Your task to perform on an android device: Open Chrome and go to settings Image 0: 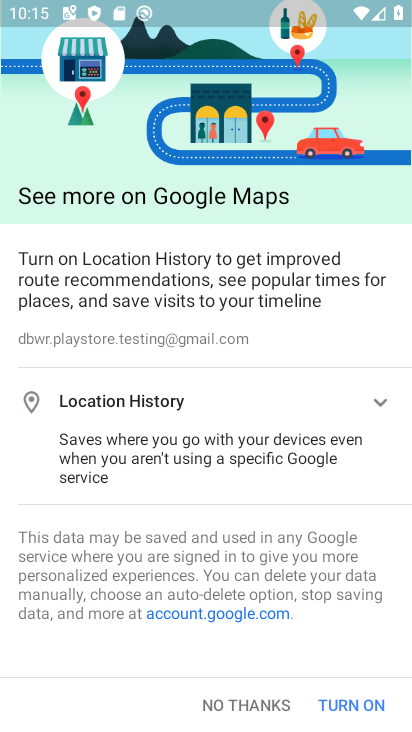
Step 0: press home button
Your task to perform on an android device: Open Chrome and go to settings Image 1: 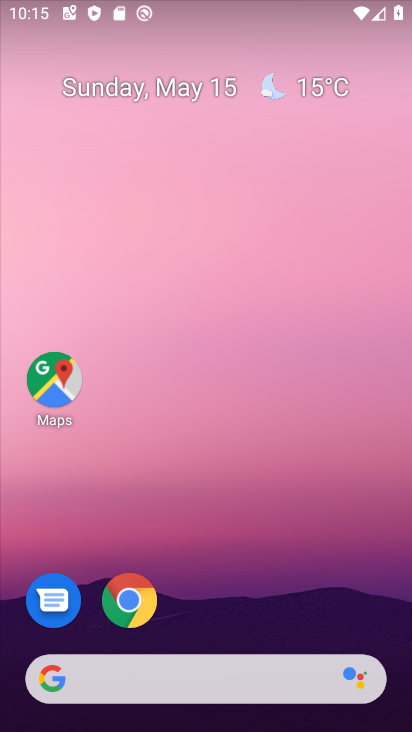
Step 1: drag from (351, 608) to (383, 170)
Your task to perform on an android device: Open Chrome and go to settings Image 2: 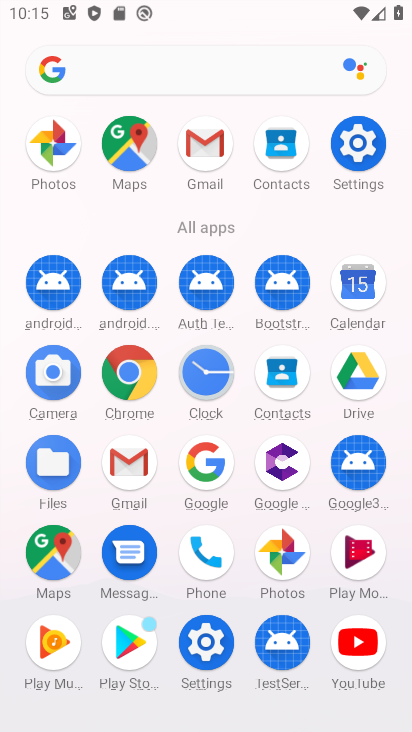
Step 2: click (130, 381)
Your task to perform on an android device: Open Chrome and go to settings Image 3: 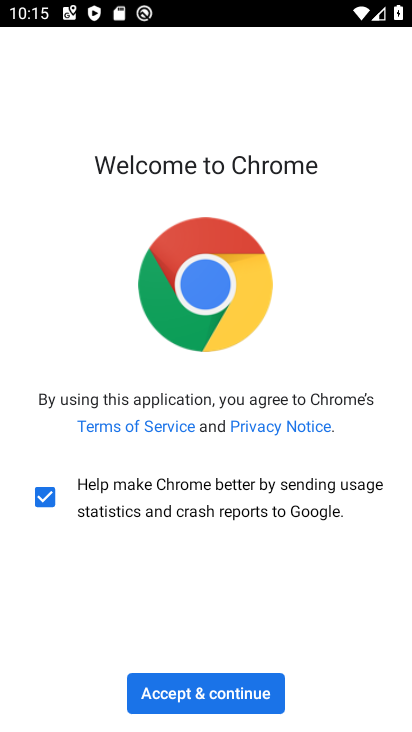
Step 3: click (264, 706)
Your task to perform on an android device: Open Chrome and go to settings Image 4: 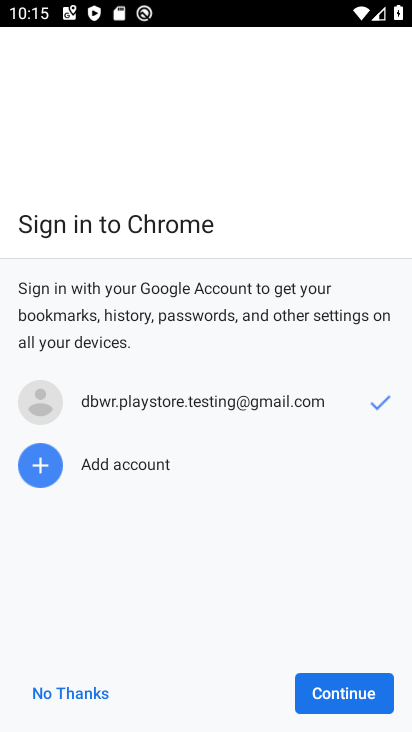
Step 4: click (356, 697)
Your task to perform on an android device: Open Chrome and go to settings Image 5: 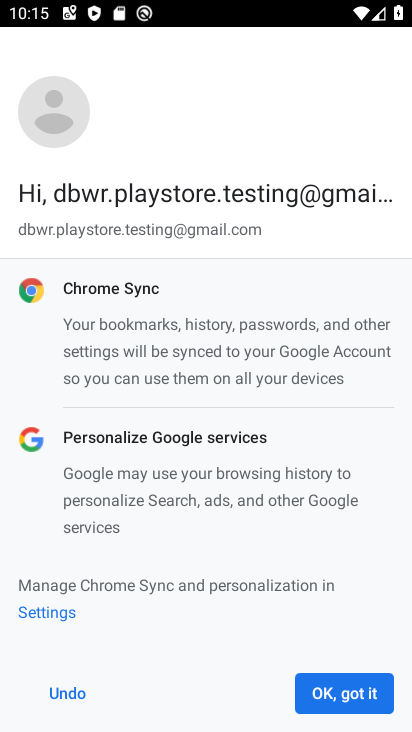
Step 5: click (356, 697)
Your task to perform on an android device: Open Chrome and go to settings Image 6: 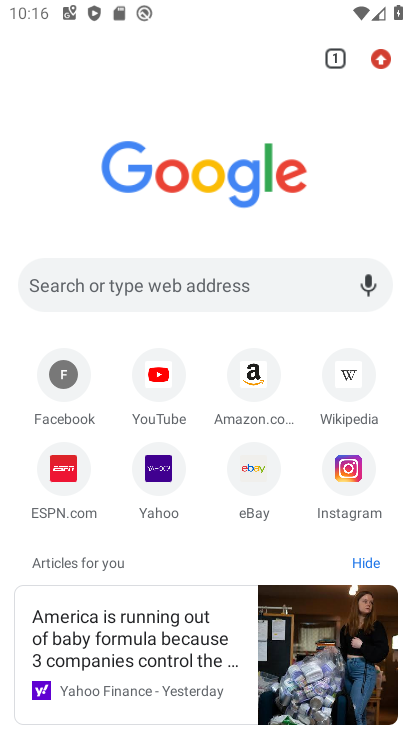
Step 6: click (377, 69)
Your task to perform on an android device: Open Chrome and go to settings Image 7: 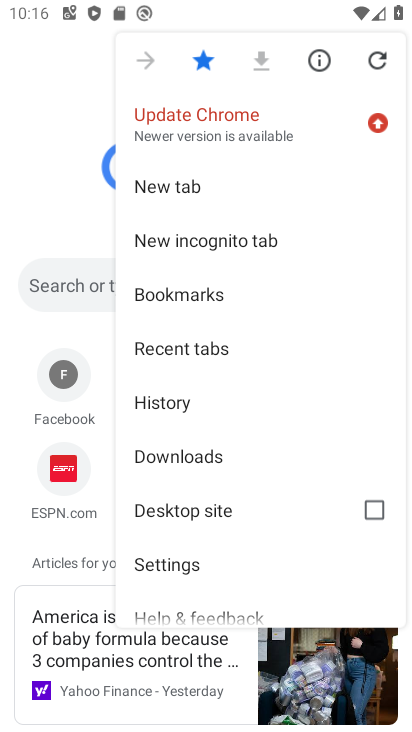
Step 7: click (195, 565)
Your task to perform on an android device: Open Chrome and go to settings Image 8: 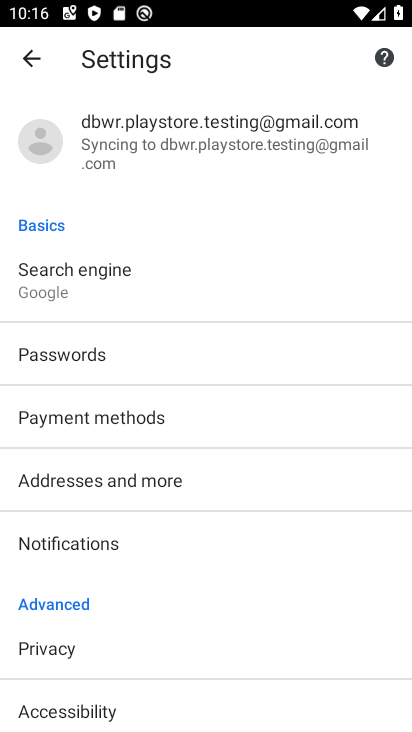
Step 8: task complete